Your task to perform on an android device: find which apps use the phone's location Image 0: 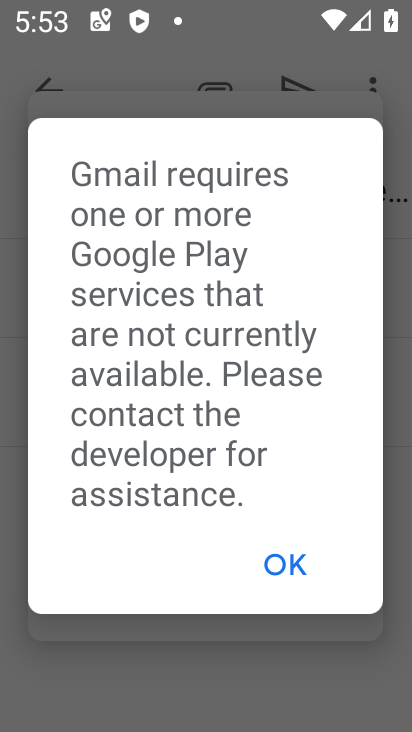
Step 0: press home button
Your task to perform on an android device: find which apps use the phone's location Image 1: 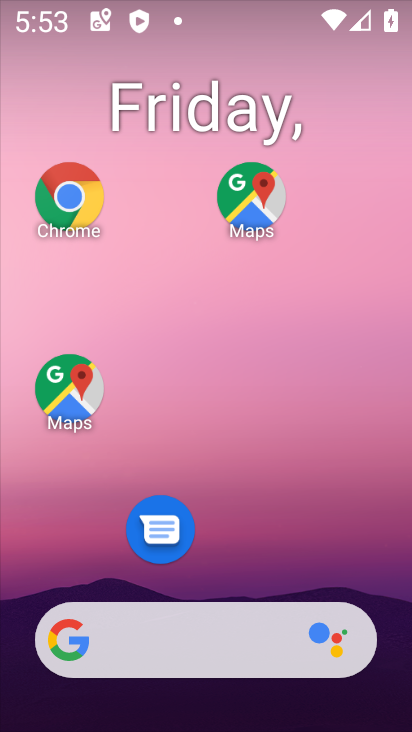
Step 1: drag from (239, 497) to (214, 110)
Your task to perform on an android device: find which apps use the phone's location Image 2: 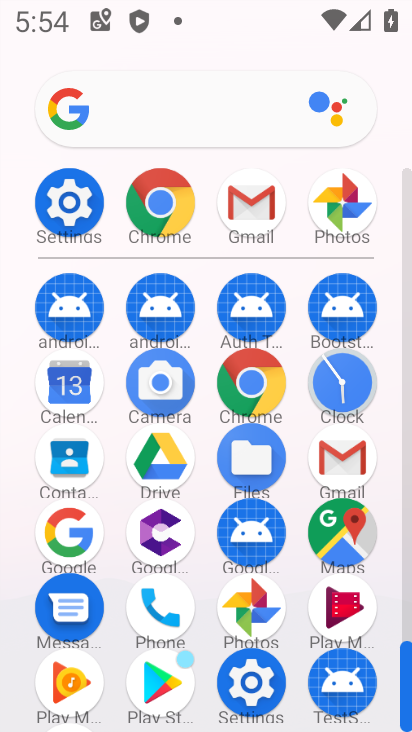
Step 2: click (69, 203)
Your task to perform on an android device: find which apps use the phone's location Image 3: 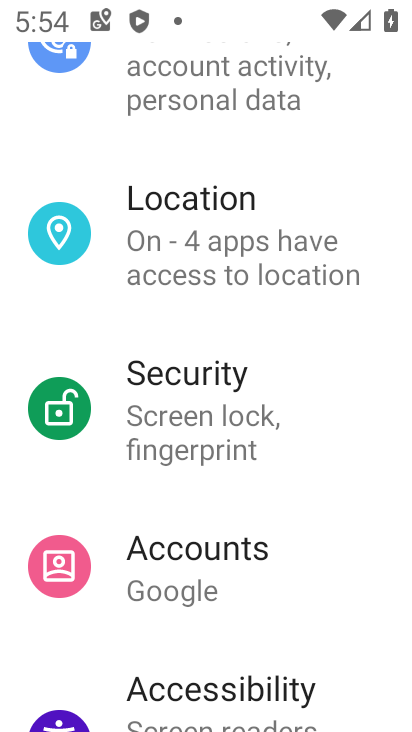
Step 3: click (167, 270)
Your task to perform on an android device: find which apps use the phone's location Image 4: 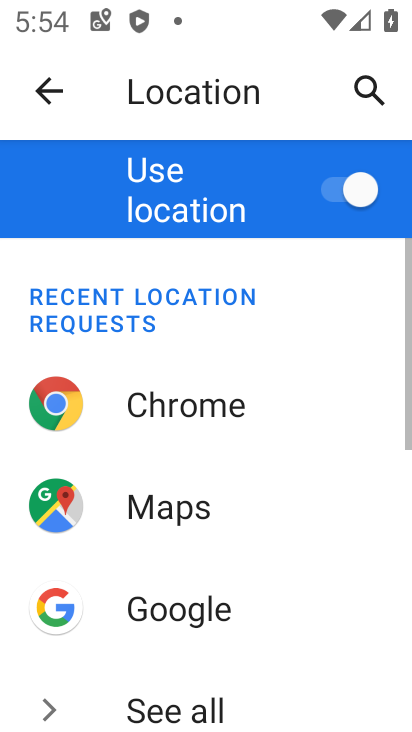
Step 4: drag from (197, 630) to (215, 226)
Your task to perform on an android device: find which apps use the phone's location Image 5: 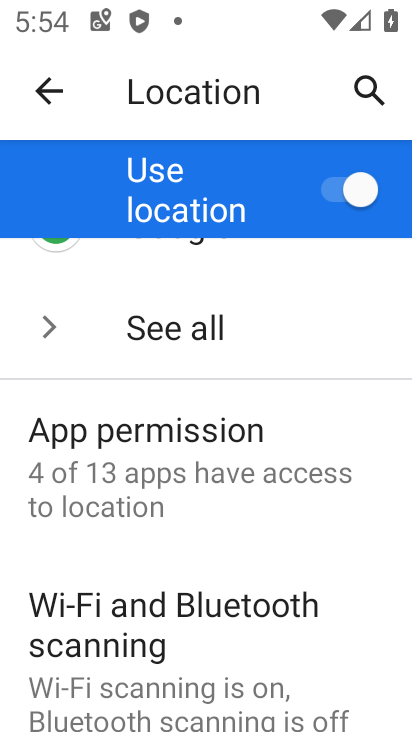
Step 5: drag from (188, 646) to (179, 248)
Your task to perform on an android device: find which apps use the phone's location Image 6: 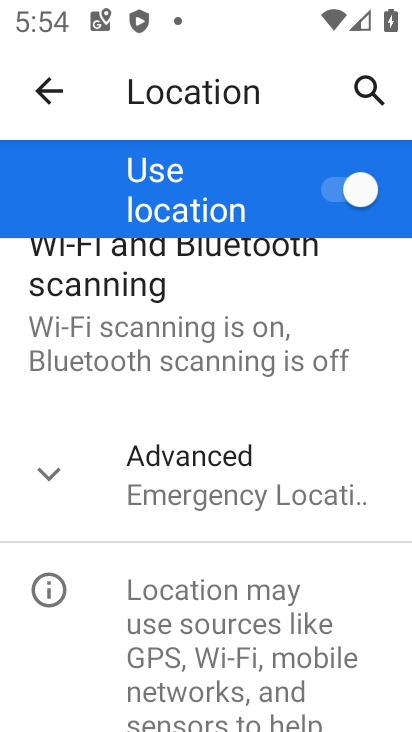
Step 6: click (160, 481)
Your task to perform on an android device: find which apps use the phone's location Image 7: 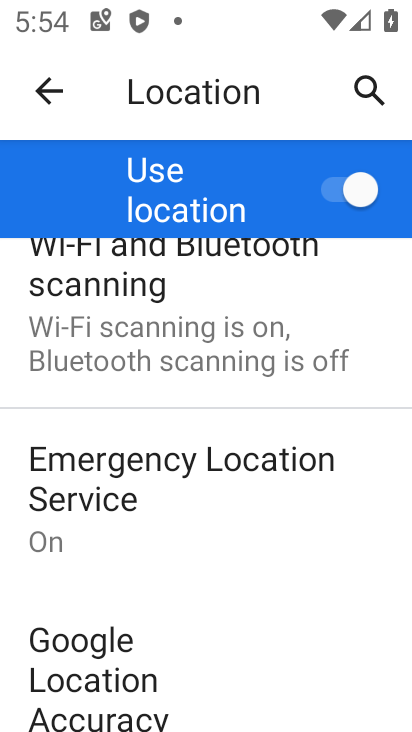
Step 7: drag from (167, 632) to (202, 365)
Your task to perform on an android device: find which apps use the phone's location Image 8: 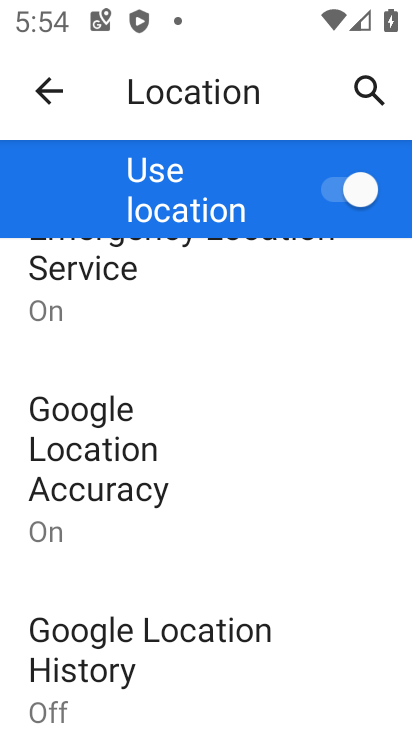
Step 8: drag from (211, 351) to (143, 657)
Your task to perform on an android device: find which apps use the phone's location Image 9: 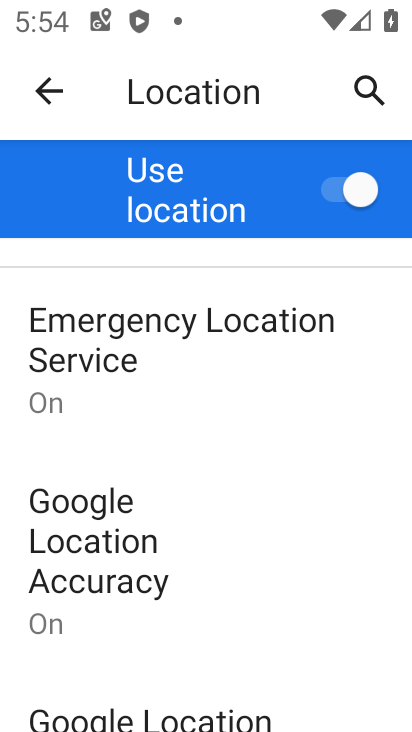
Step 9: drag from (175, 429) to (137, 691)
Your task to perform on an android device: find which apps use the phone's location Image 10: 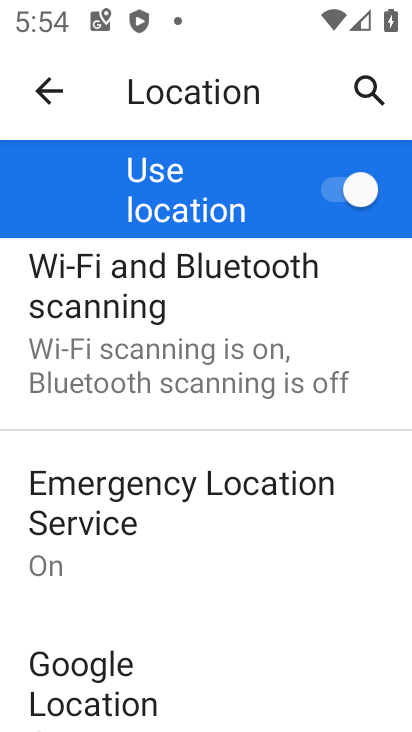
Step 10: drag from (220, 393) to (132, 705)
Your task to perform on an android device: find which apps use the phone's location Image 11: 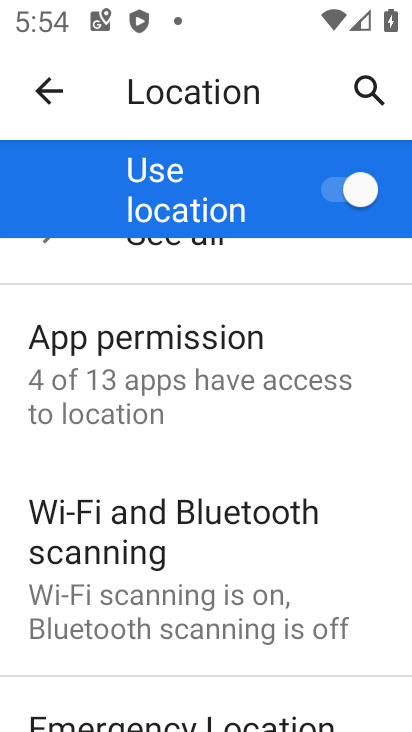
Step 11: click (134, 367)
Your task to perform on an android device: find which apps use the phone's location Image 12: 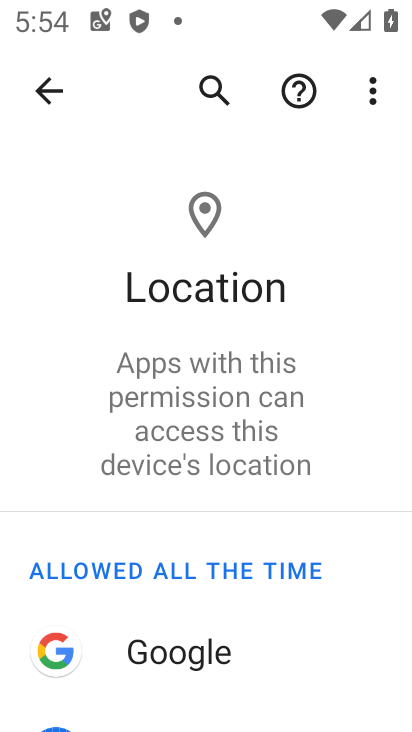
Step 12: task complete